Your task to perform on an android device: allow notifications from all sites in the chrome app Image 0: 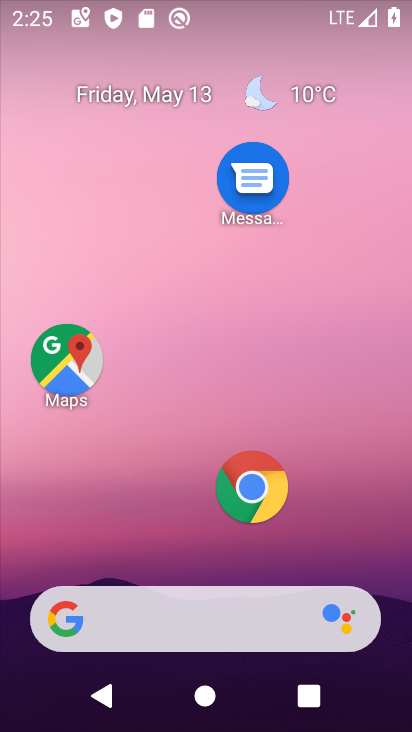
Step 0: click (254, 489)
Your task to perform on an android device: allow notifications from all sites in the chrome app Image 1: 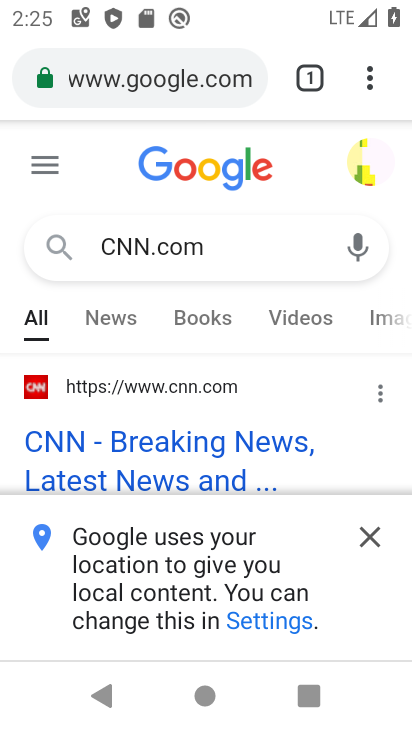
Step 1: click (373, 75)
Your task to perform on an android device: allow notifications from all sites in the chrome app Image 2: 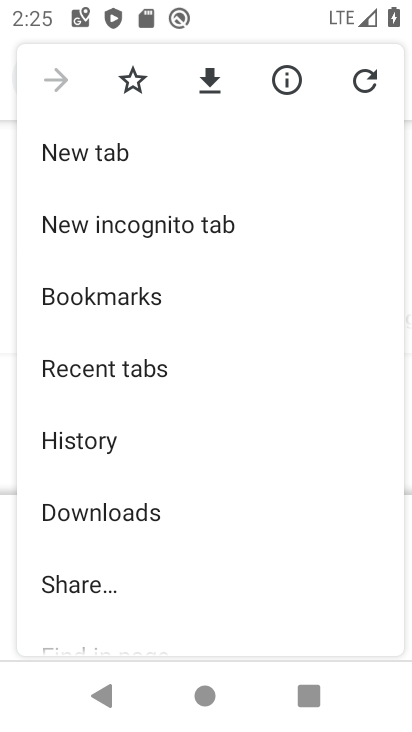
Step 2: drag from (169, 426) to (207, 143)
Your task to perform on an android device: allow notifications from all sites in the chrome app Image 3: 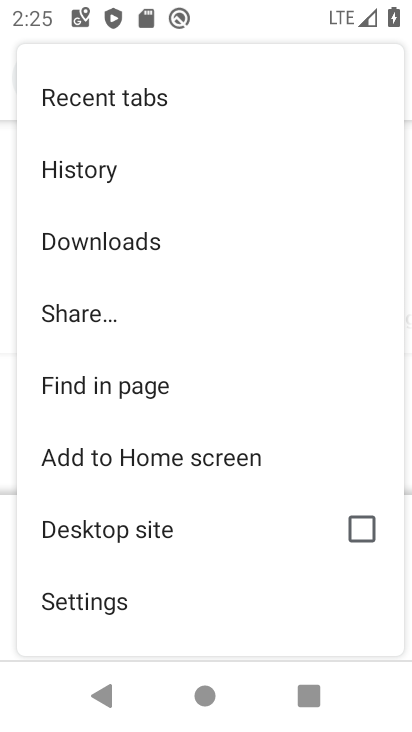
Step 3: click (95, 600)
Your task to perform on an android device: allow notifications from all sites in the chrome app Image 4: 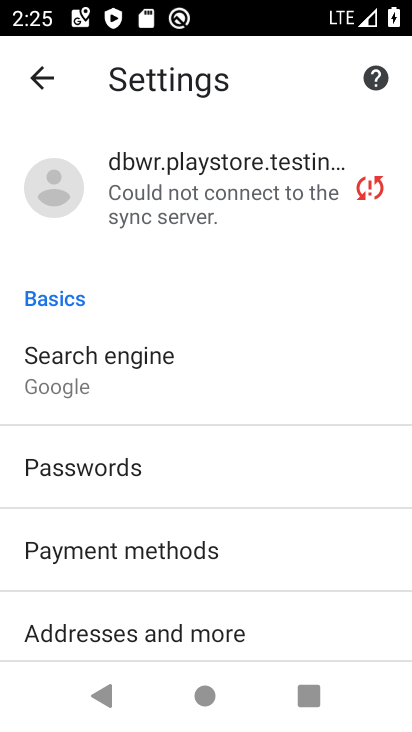
Step 4: drag from (201, 580) to (237, 218)
Your task to perform on an android device: allow notifications from all sites in the chrome app Image 5: 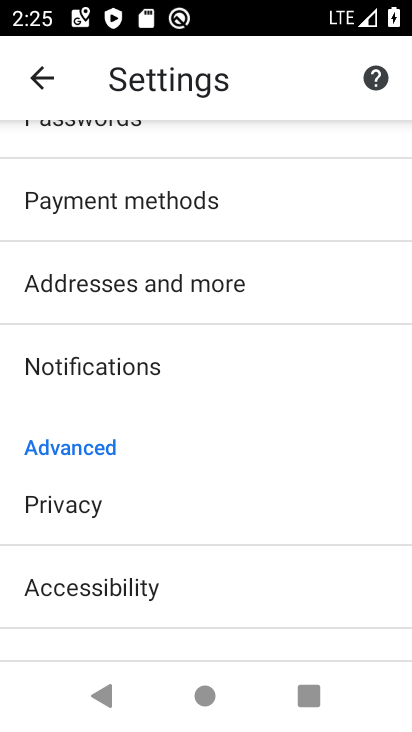
Step 5: click (129, 371)
Your task to perform on an android device: allow notifications from all sites in the chrome app Image 6: 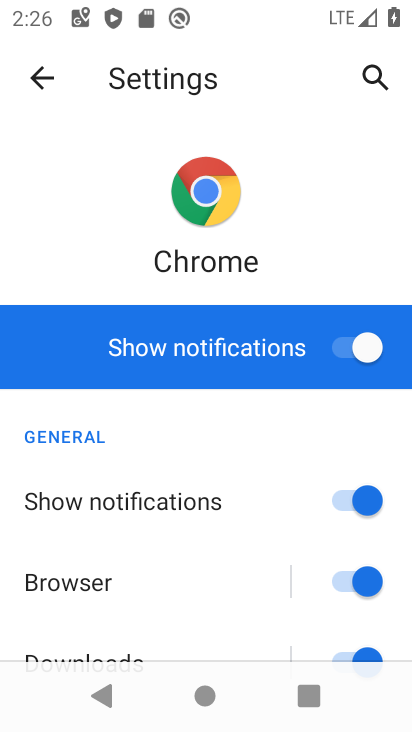
Step 6: task complete